Your task to perform on an android device: Open eBay Image 0: 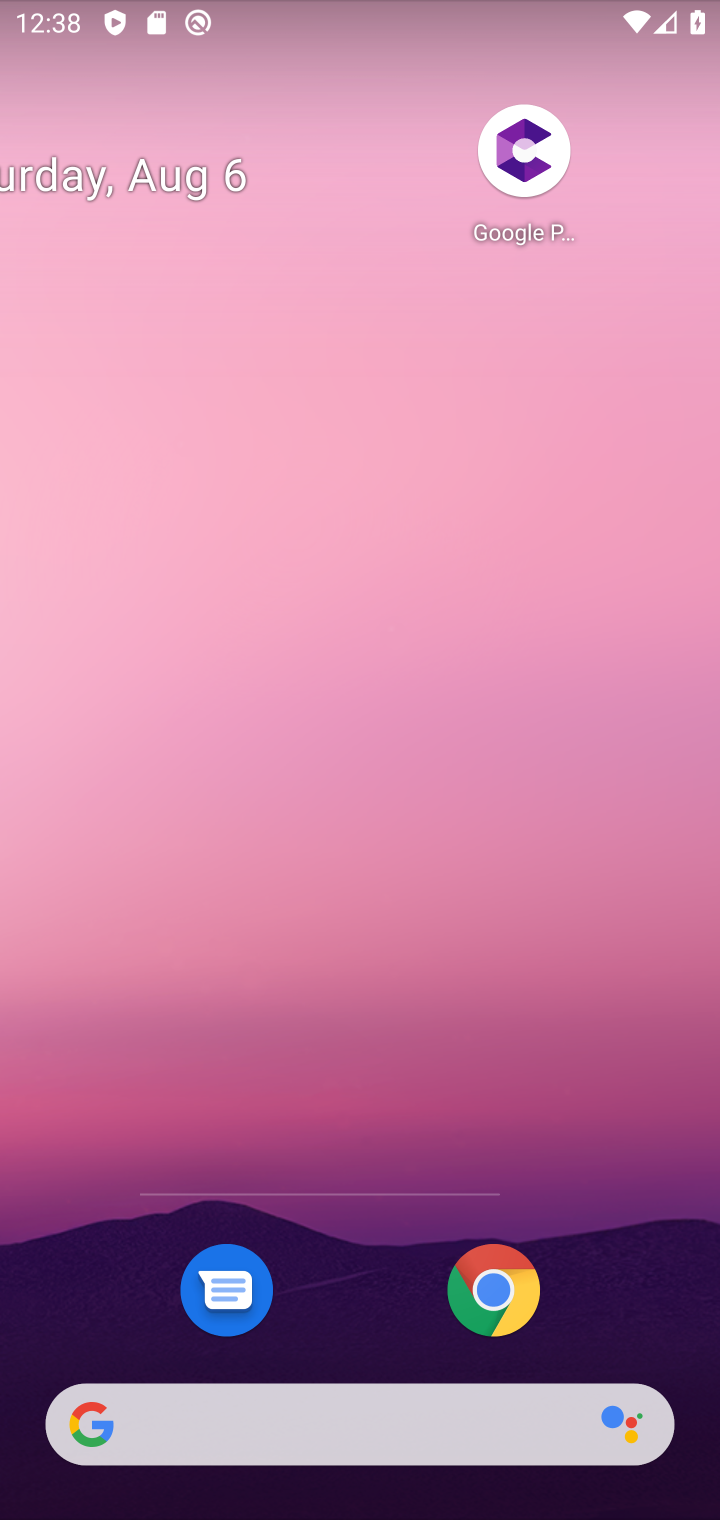
Step 0: press back button
Your task to perform on an android device: Open eBay Image 1: 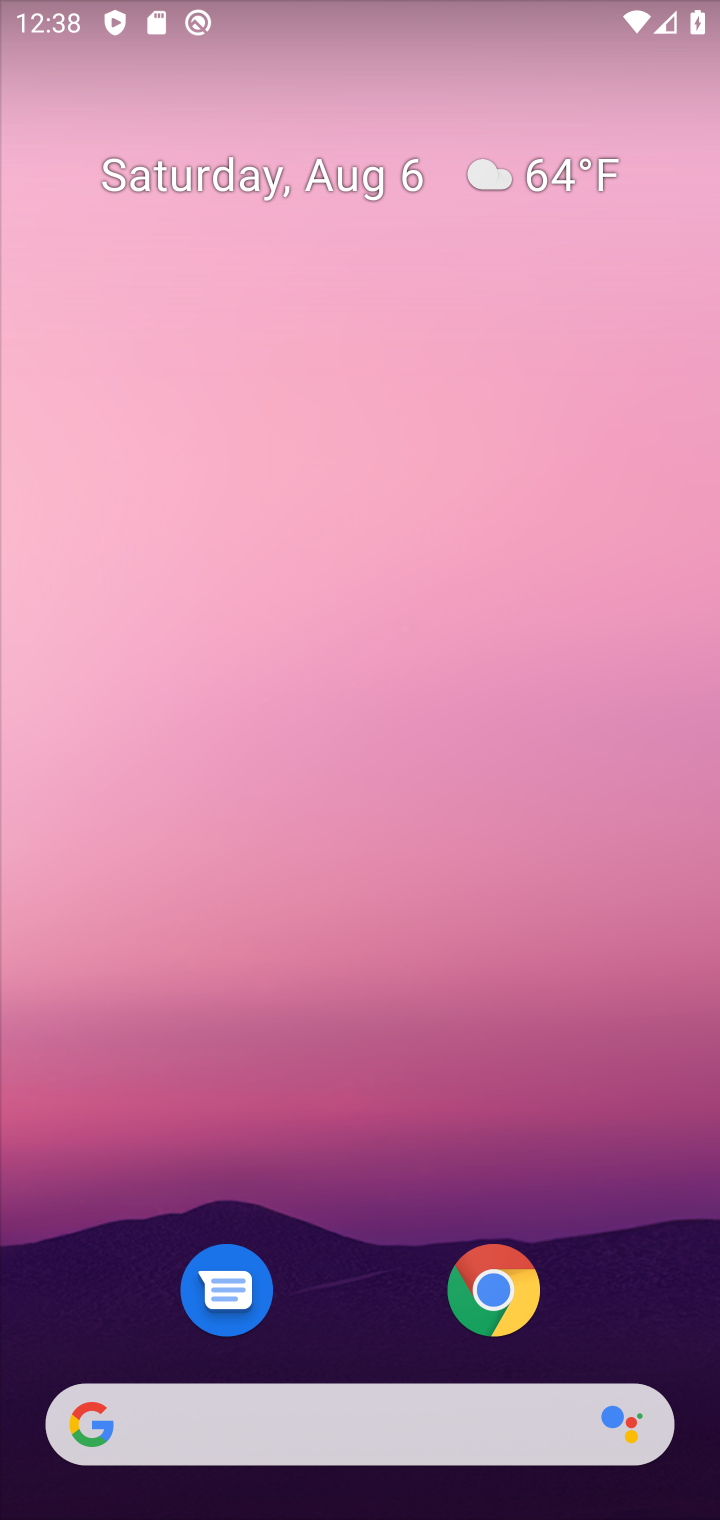
Step 1: drag from (329, 1173) to (330, 363)
Your task to perform on an android device: Open eBay Image 2: 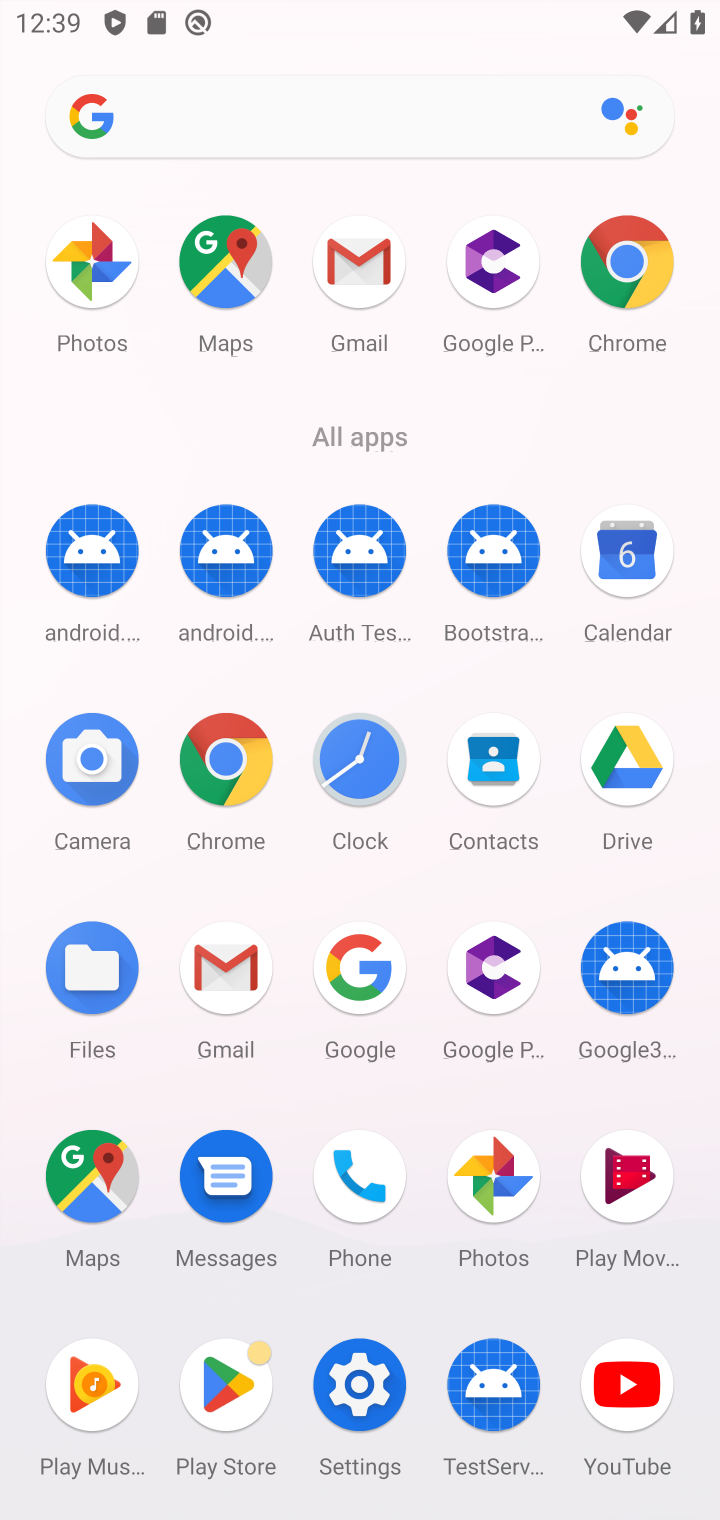
Step 2: click (237, 788)
Your task to perform on an android device: Open eBay Image 3: 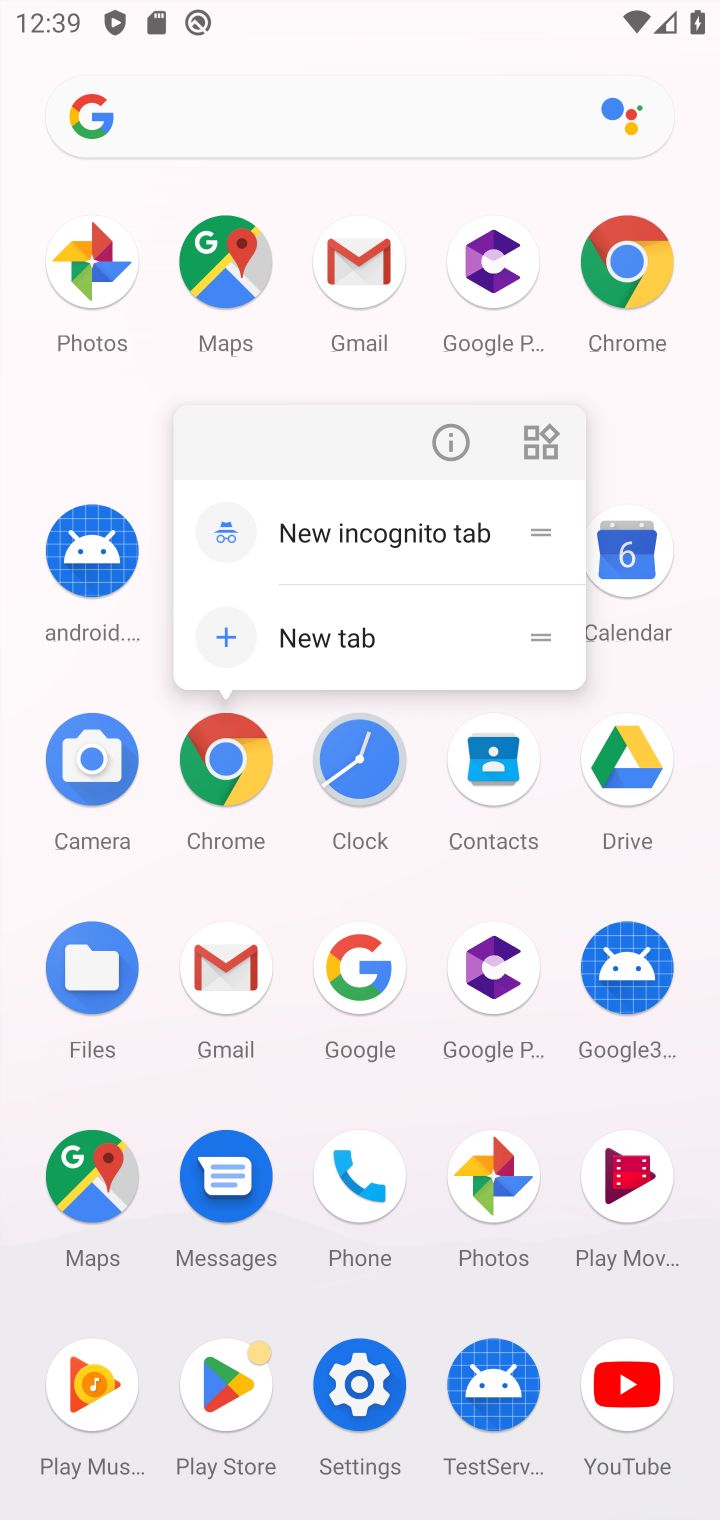
Step 3: click (233, 782)
Your task to perform on an android device: Open eBay Image 4: 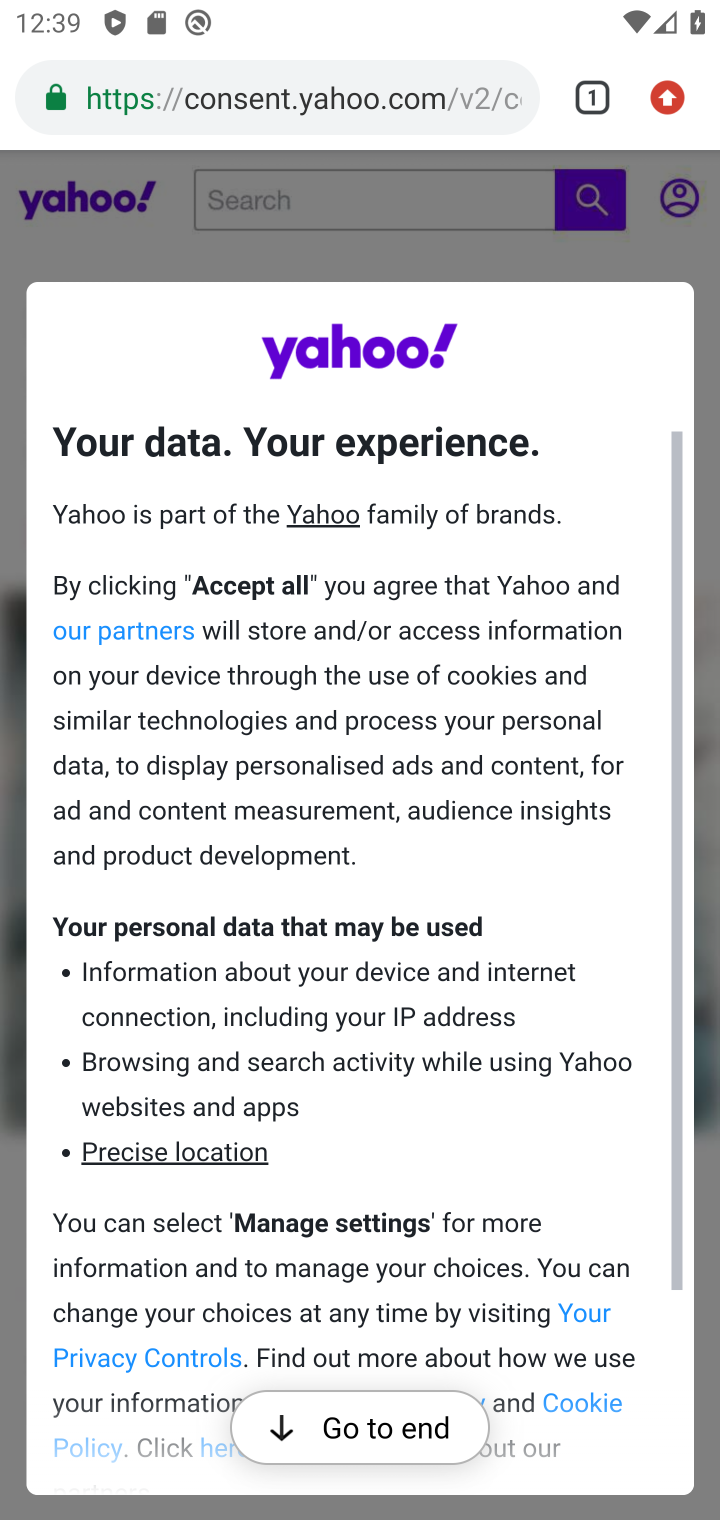
Step 4: click (589, 95)
Your task to perform on an android device: Open eBay Image 5: 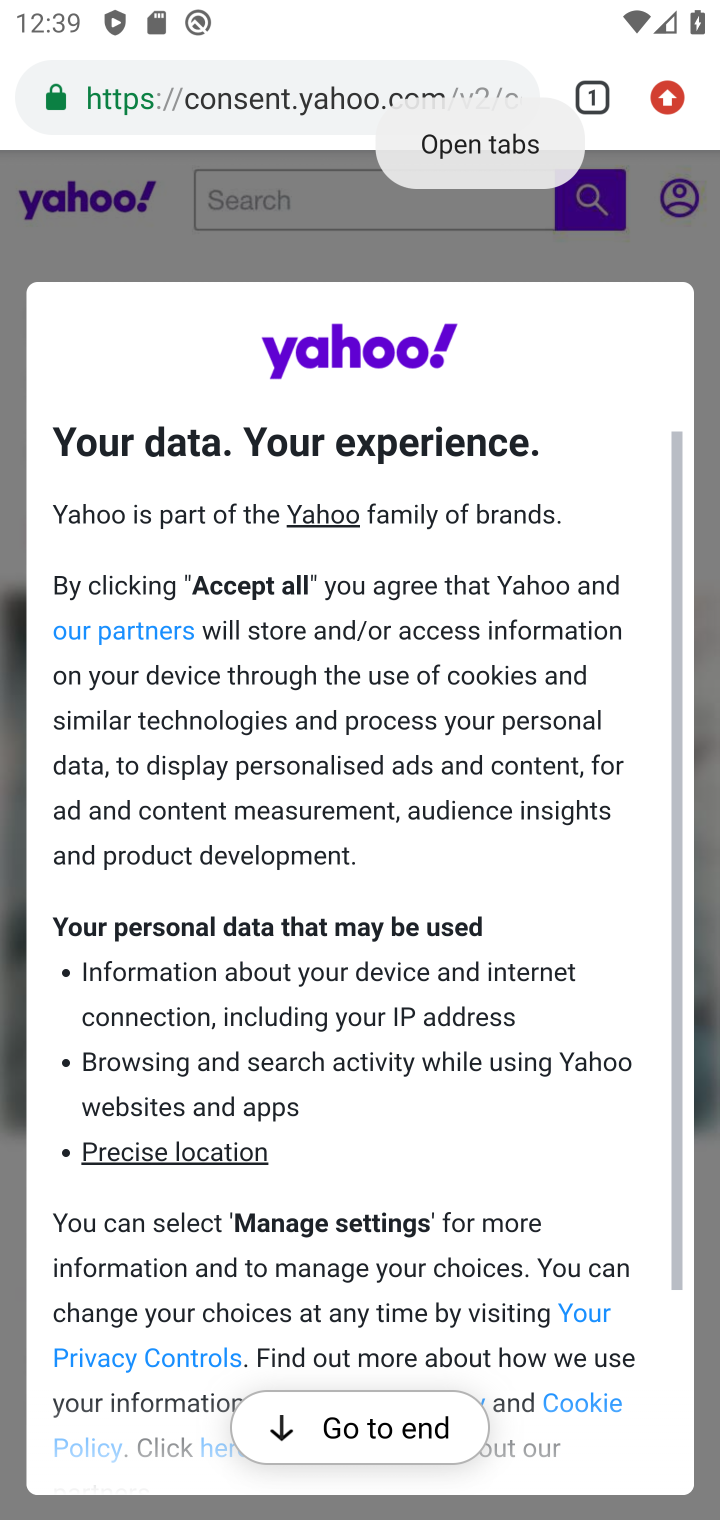
Step 5: click (598, 104)
Your task to perform on an android device: Open eBay Image 6: 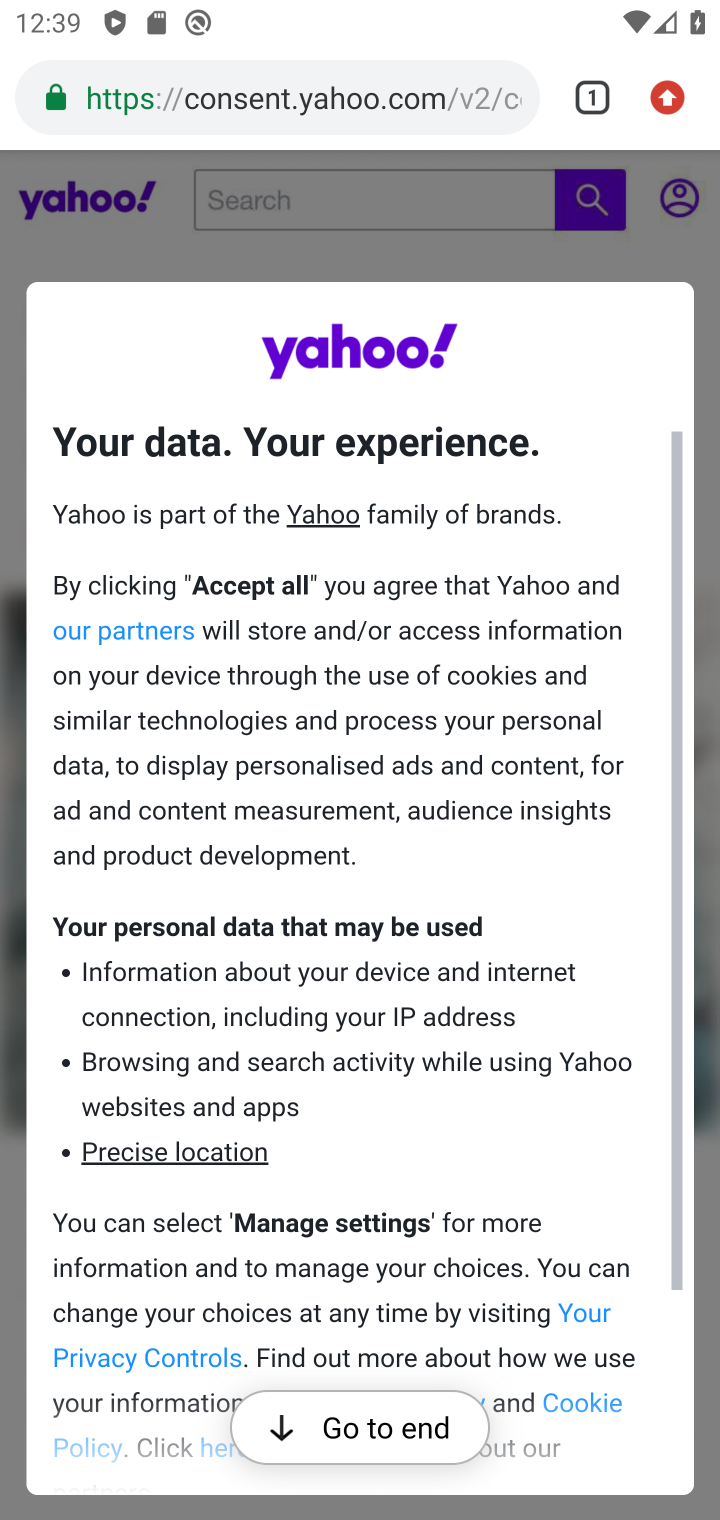
Step 6: click (570, 102)
Your task to perform on an android device: Open eBay Image 7: 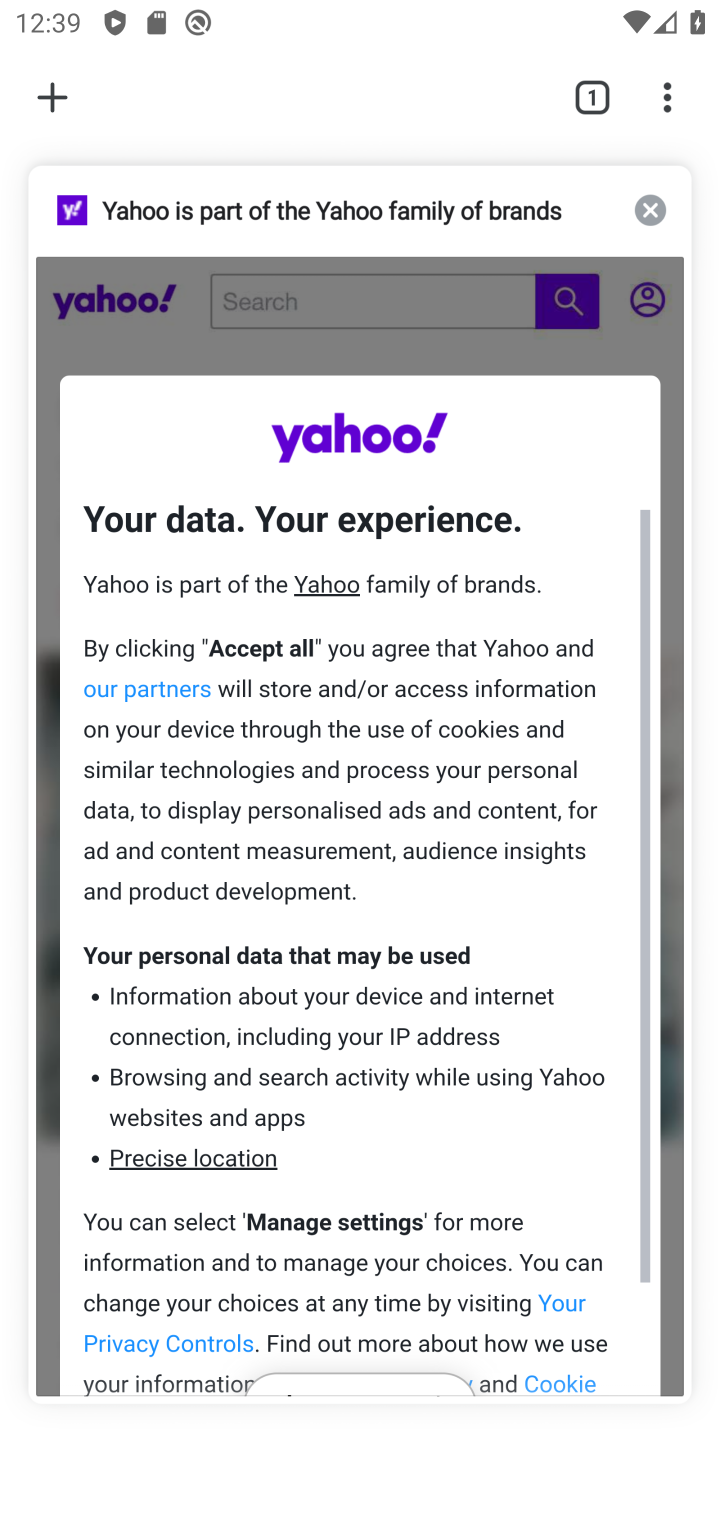
Step 7: click (53, 80)
Your task to perform on an android device: Open eBay Image 8: 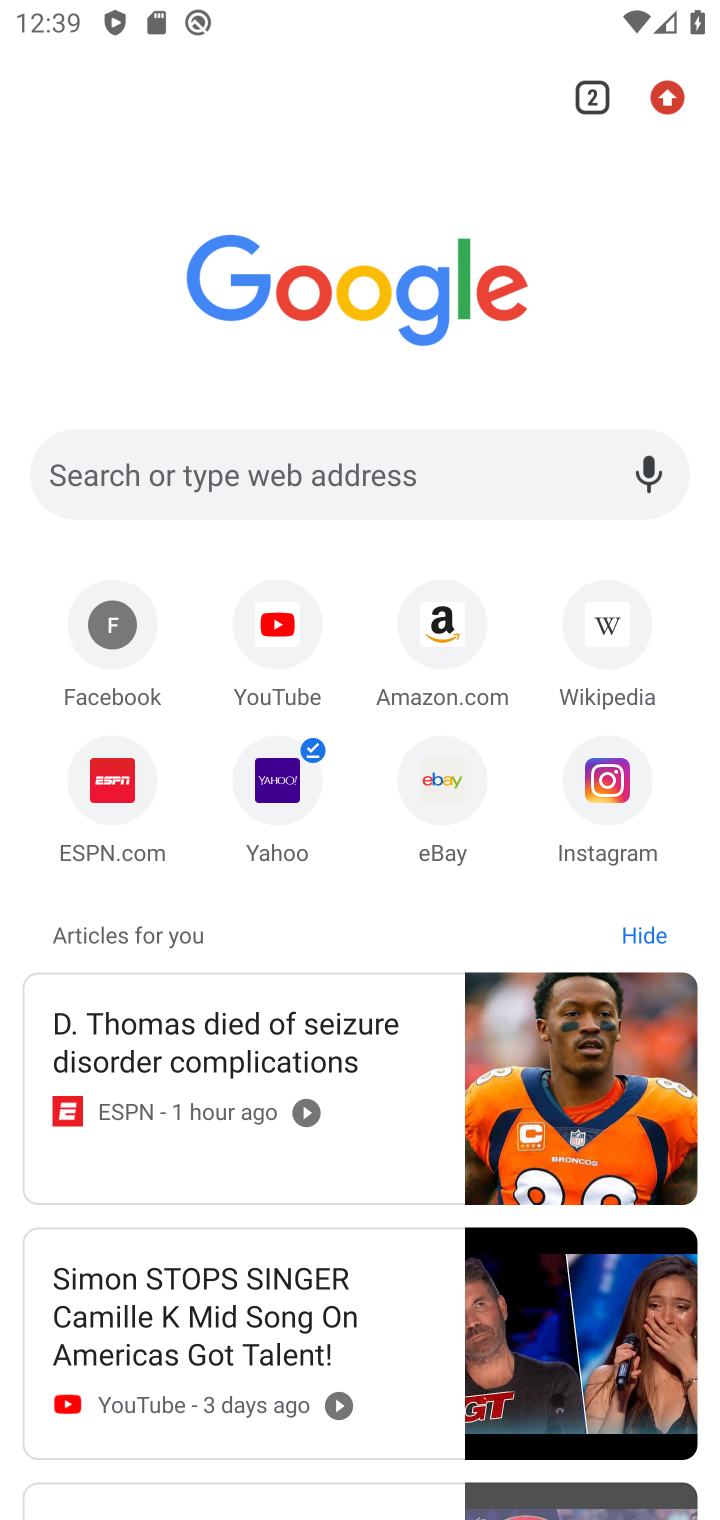
Step 8: click (445, 786)
Your task to perform on an android device: Open eBay Image 9: 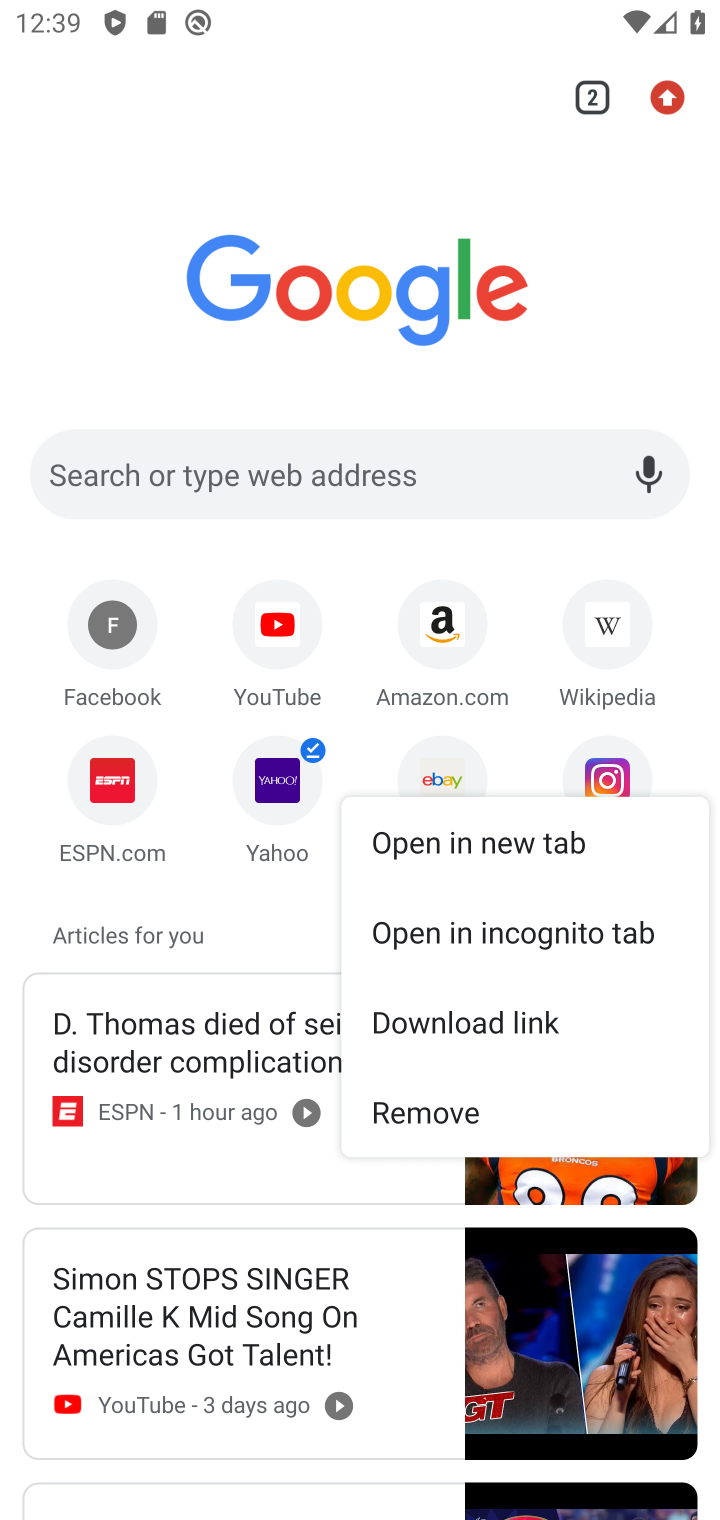
Step 9: click (458, 757)
Your task to perform on an android device: Open eBay Image 10: 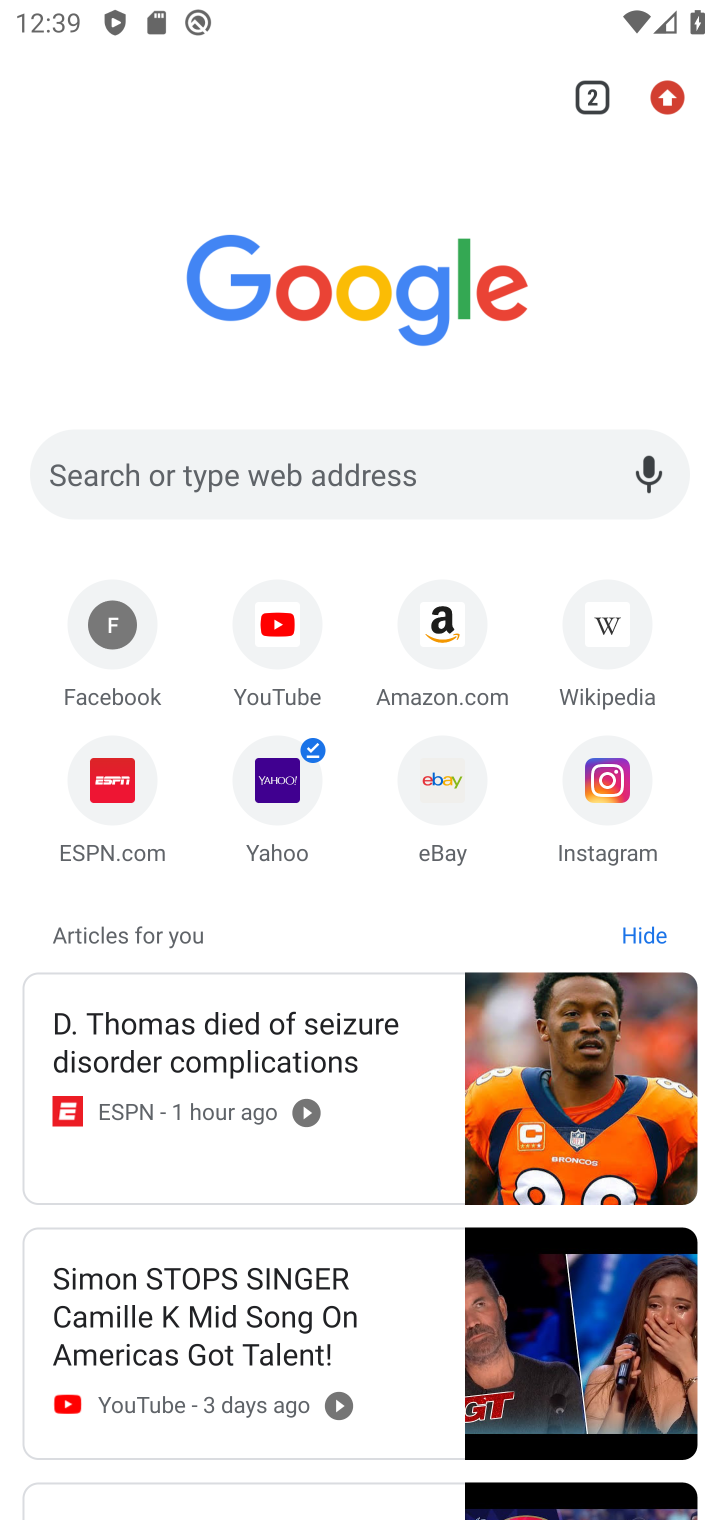
Step 10: click (453, 773)
Your task to perform on an android device: Open eBay Image 11: 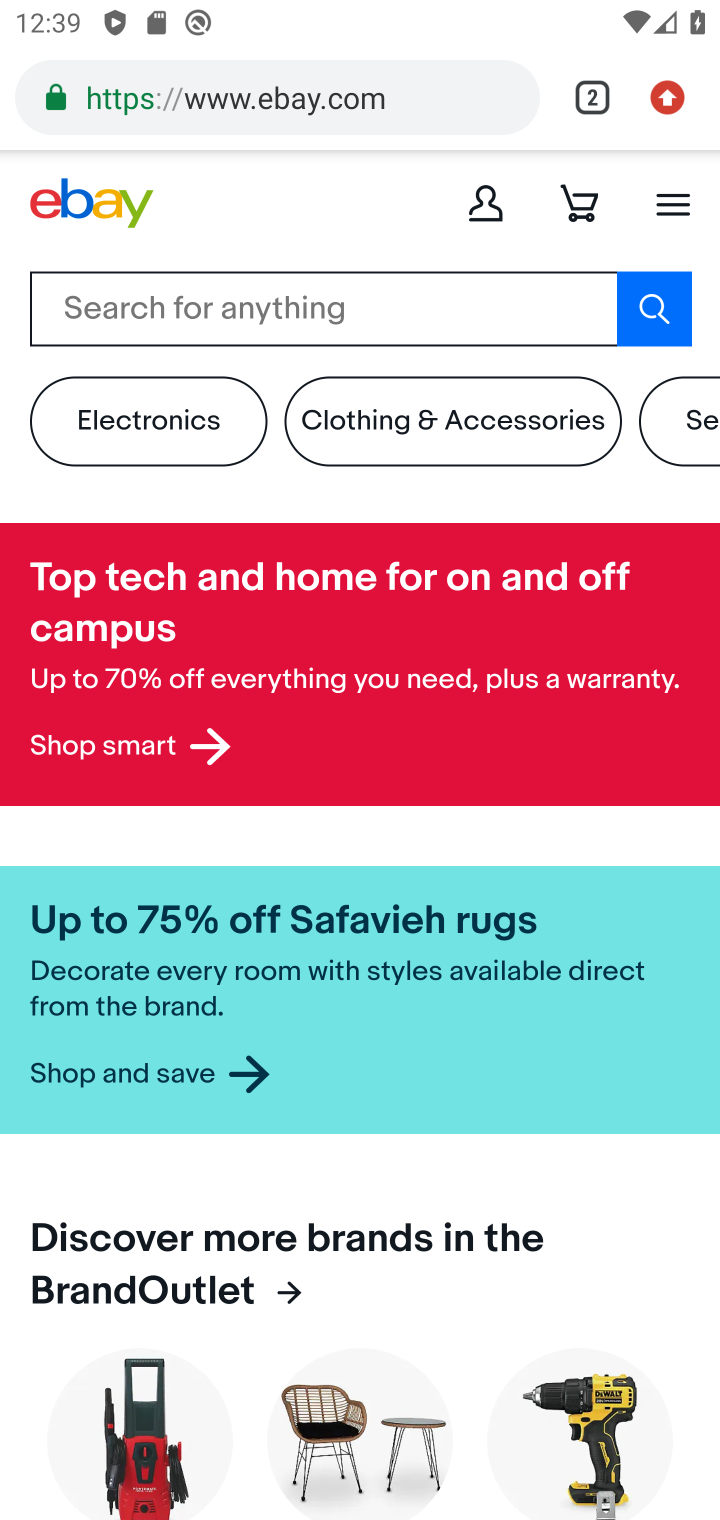
Step 11: task complete